Your task to perform on an android device: Search for pizza restaurants on Maps Image 0: 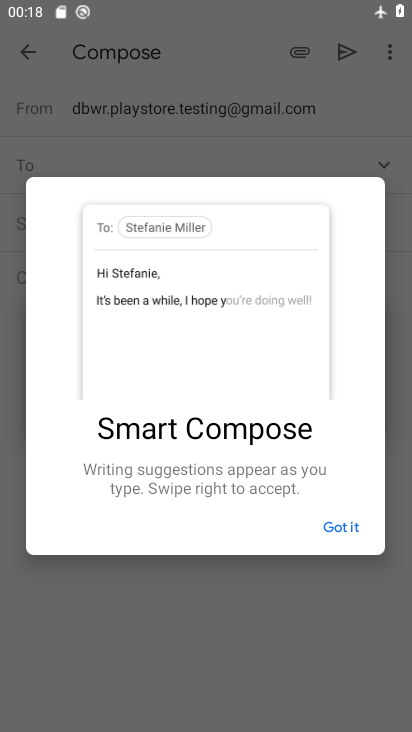
Step 0: press home button
Your task to perform on an android device: Search for pizza restaurants on Maps Image 1: 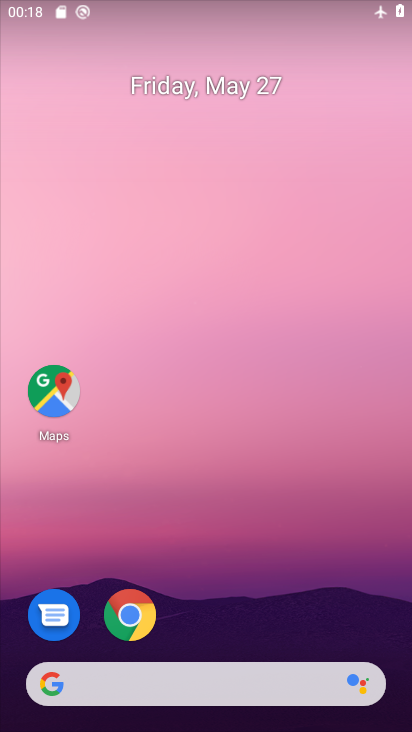
Step 1: drag from (368, 502) to (374, 214)
Your task to perform on an android device: Search for pizza restaurants on Maps Image 2: 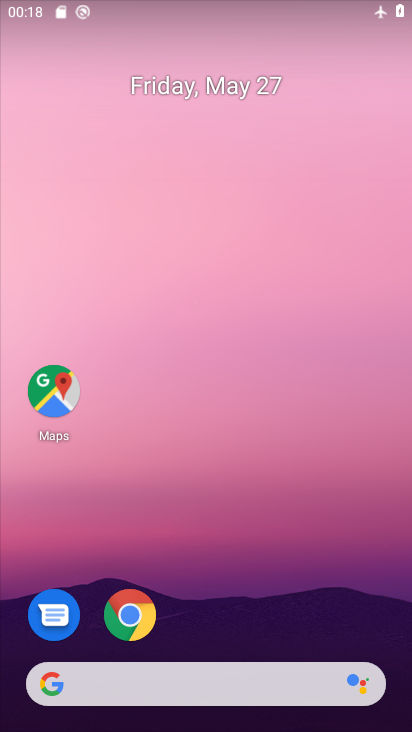
Step 2: drag from (316, 598) to (330, 239)
Your task to perform on an android device: Search for pizza restaurants on Maps Image 3: 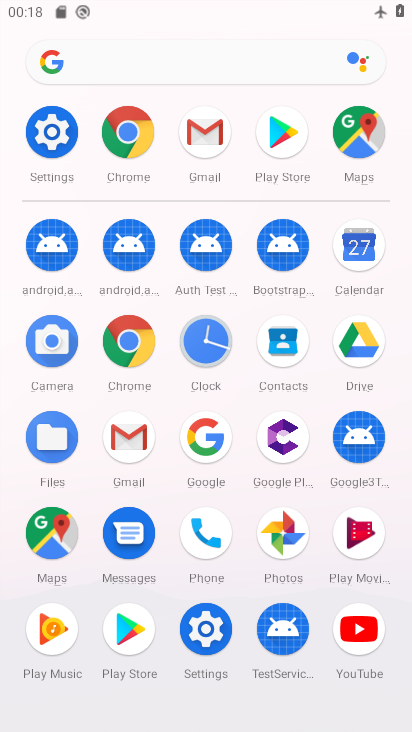
Step 3: click (49, 540)
Your task to perform on an android device: Search for pizza restaurants on Maps Image 4: 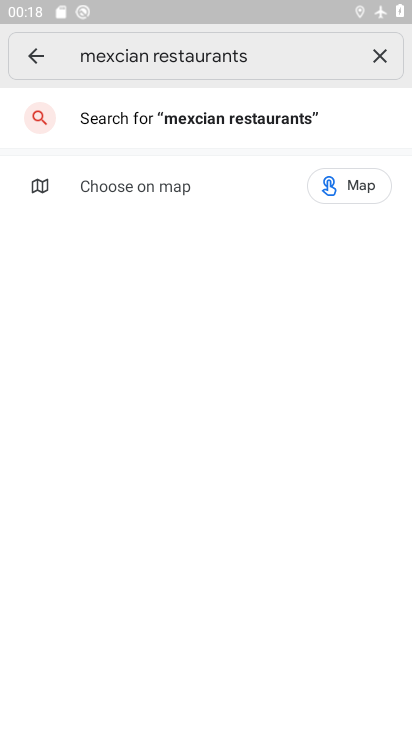
Step 4: click (379, 62)
Your task to perform on an android device: Search for pizza restaurants on Maps Image 5: 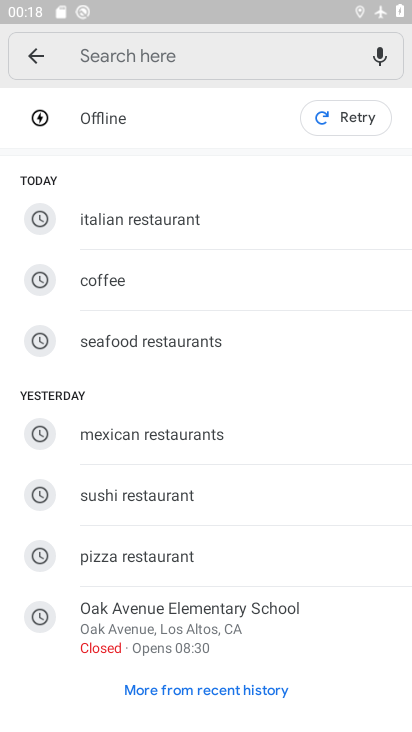
Step 5: click (274, 70)
Your task to perform on an android device: Search for pizza restaurants on Maps Image 6: 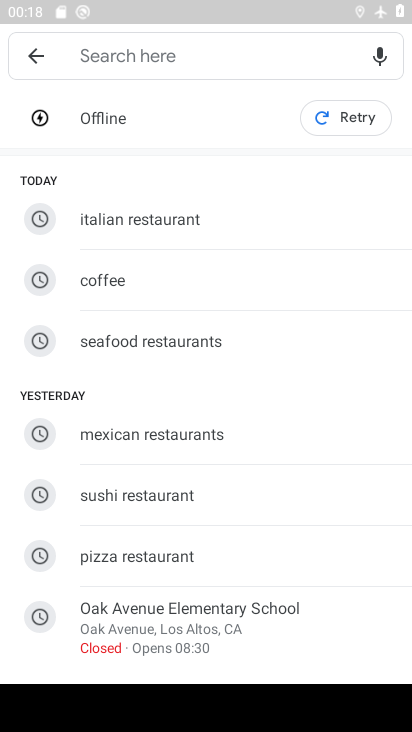
Step 6: type "pizzaa restaurants"
Your task to perform on an android device: Search for pizza restaurants on Maps Image 7: 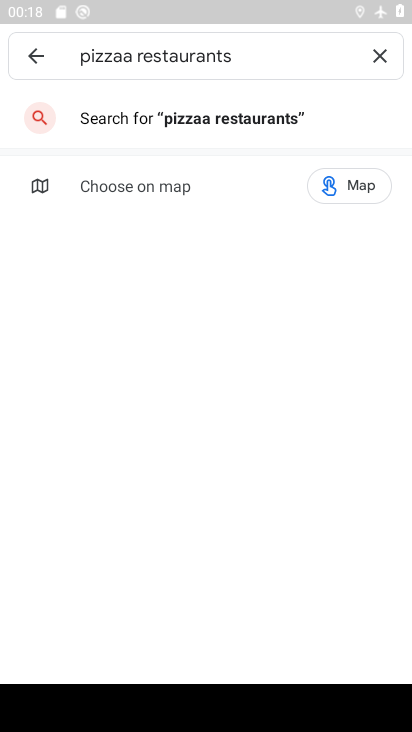
Step 7: task complete